Your task to perform on an android device: Empty the shopping cart on ebay.com. Add "duracell triple a" to the cart on ebay.com Image 0: 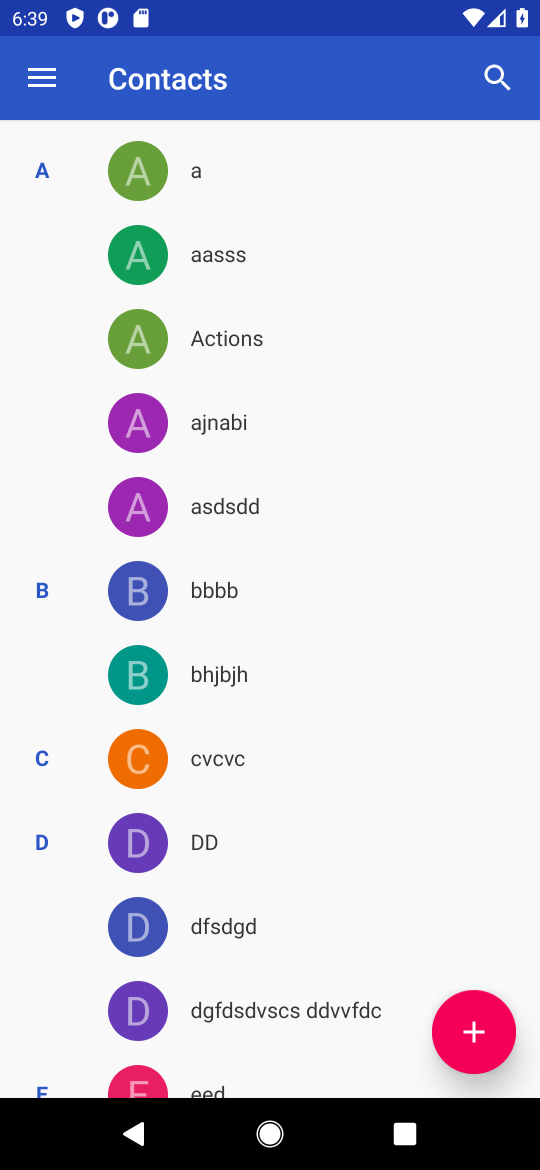
Step 0: press home button
Your task to perform on an android device: Empty the shopping cart on ebay.com. Add "duracell triple a" to the cart on ebay.com Image 1: 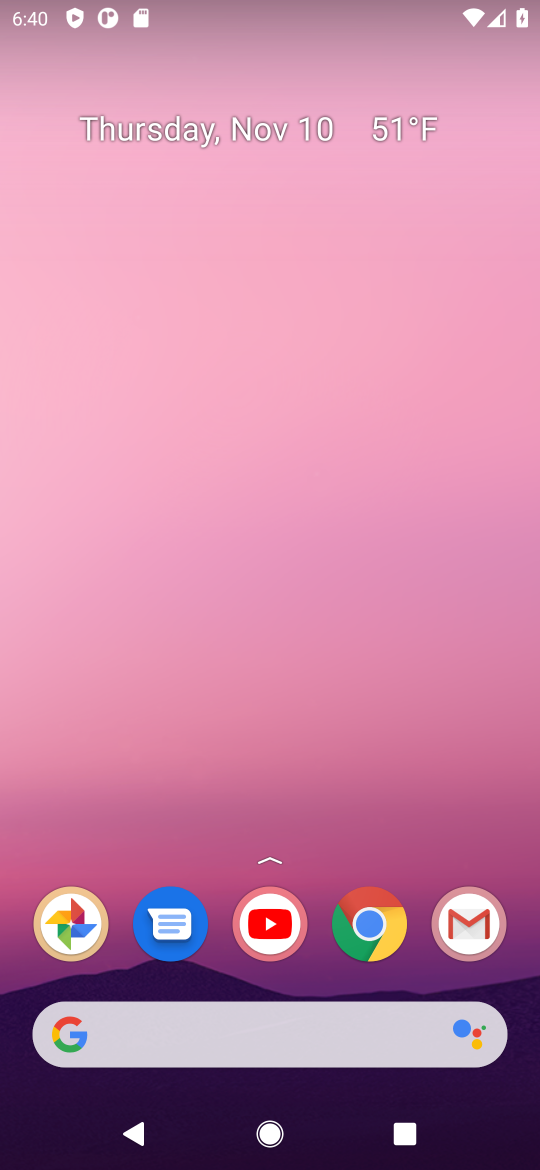
Step 1: click (370, 935)
Your task to perform on an android device: Empty the shopping cart on ebay.com. Add "duracell triple a" to the cart on ebay.com Image 2: 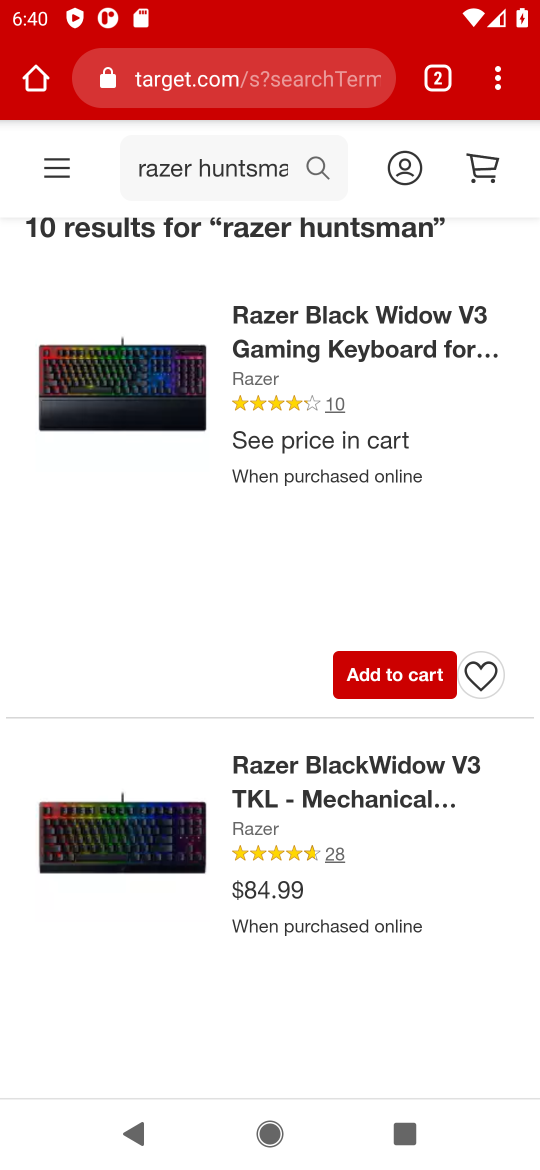
Step 2: click (199, 80)
Your task to perform on an android device: Empty the shopping cart on ebay.com. Add "duracell triple a" to the cart on ebay.com Image 3: 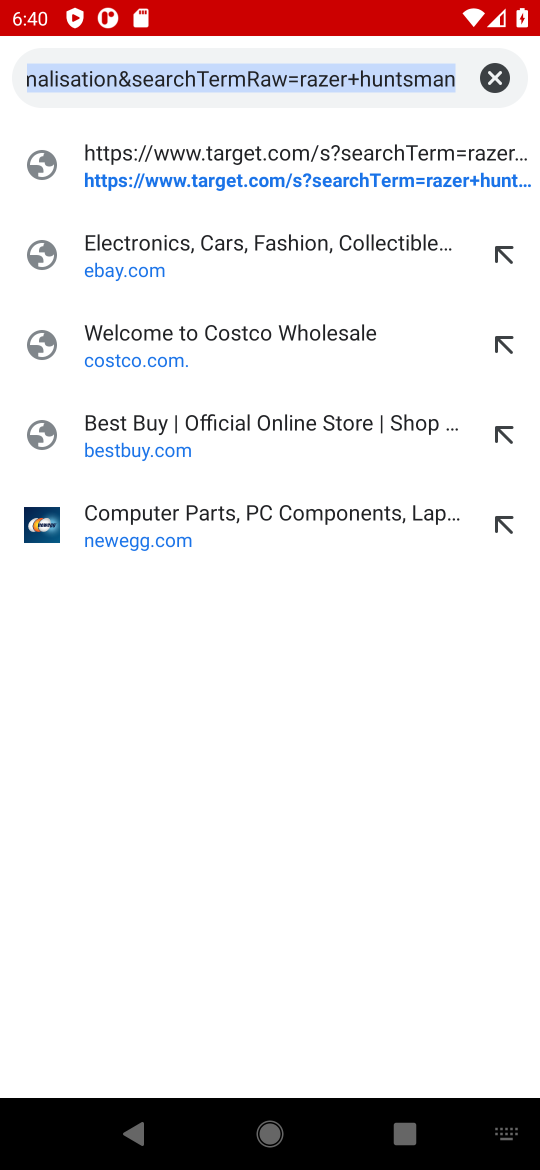
Step 3: click (109, 272)
Your task to perform on an android device: Empty the shopping cart on ebay.com. Add "duracell triple a" to the cart on ebay.com Image 4: 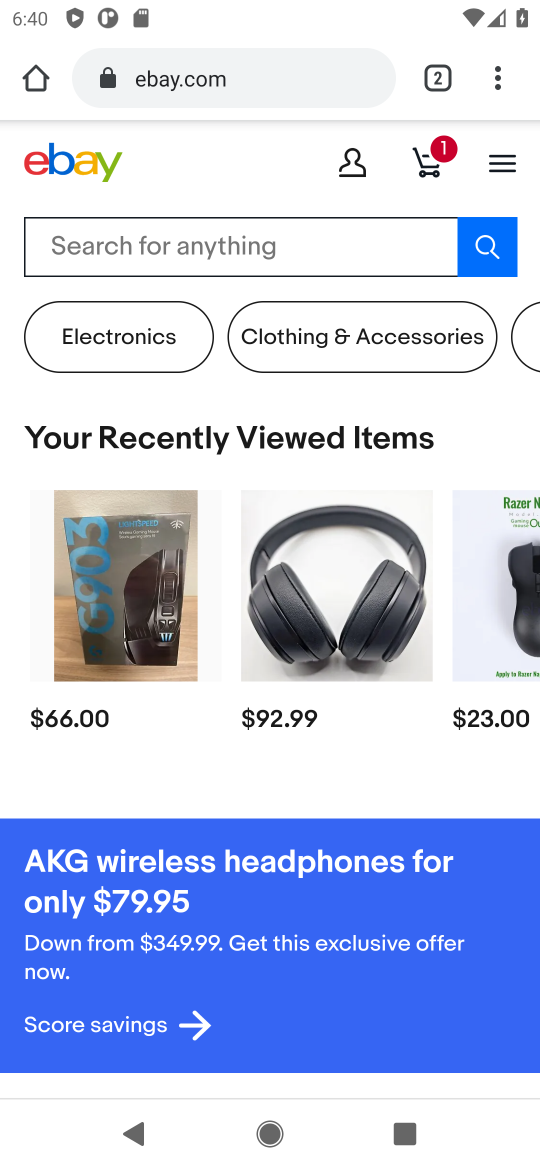
Step 4: click (431, 158)
Your task to perform on an android device: Empty the shopping cart on ebay.com. Add "duracell triple a" to the cart on ebay.com Image 5: 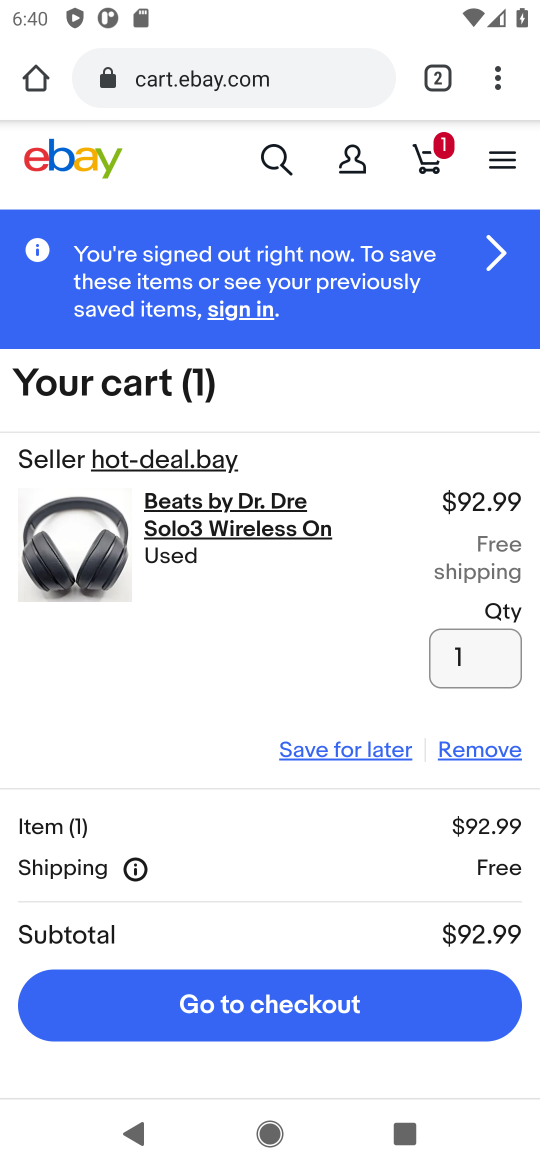
Step 5: click (477, 753)
Your task to perform on an android device: Empty the shopping cart on ebay.com. Add "duracell triple a" to the cart on ebay.com Image 6: 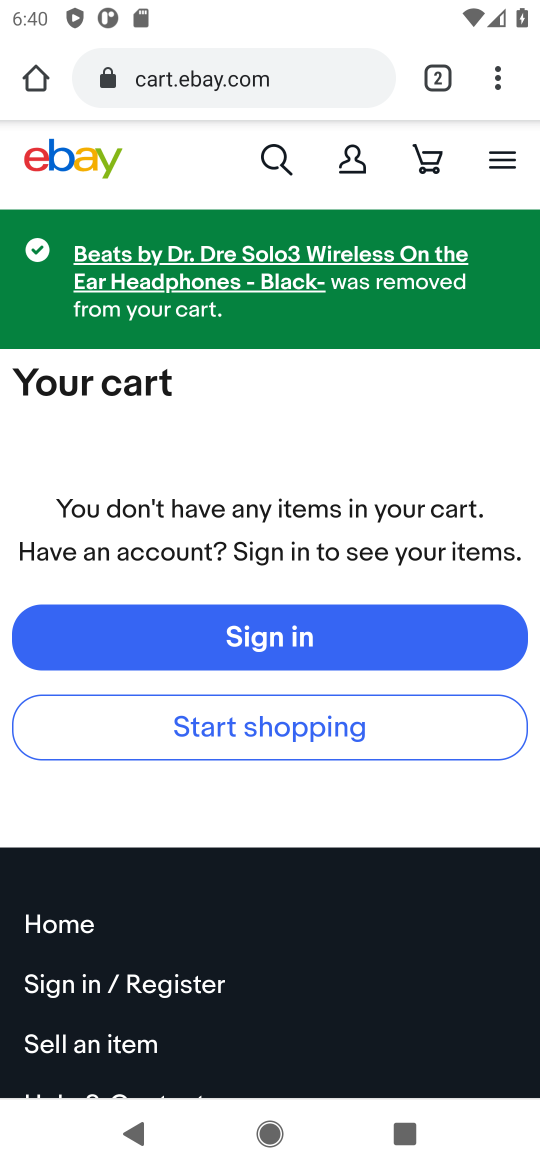
Step 6: click (279, 135)
Your task to perform on an android device: Empty the shopping cart on ebay.com. Add "duracell triple a" to the cart on ebay.com Image 7: 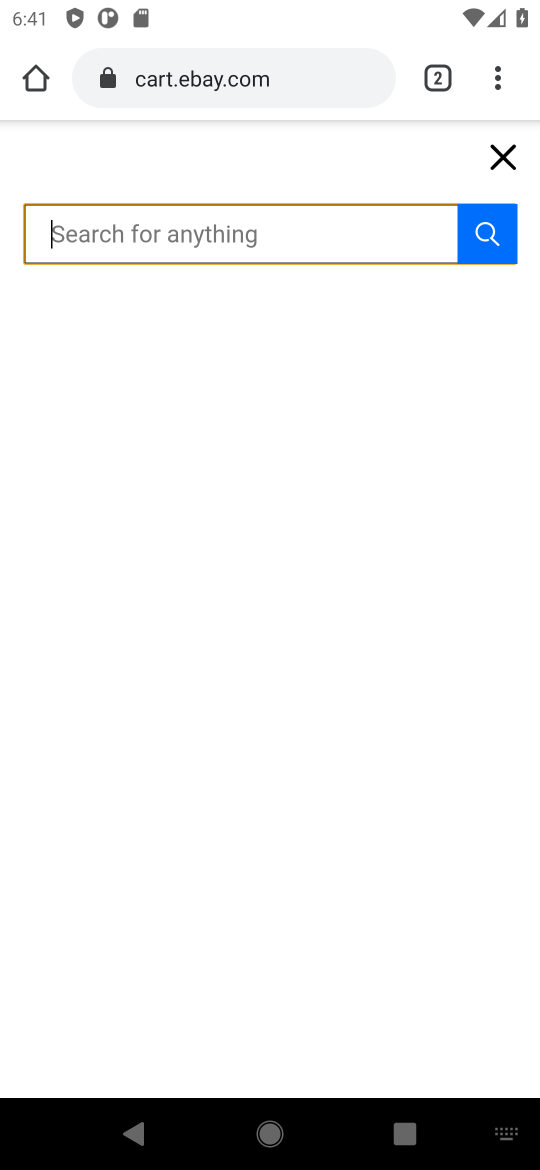
Step 7: type "duracell triple a"
Your task to perform on an android device: Empty the shopping cart on ebay.com. Add "duracell triple a" to the cart on ebay.com Image 8: 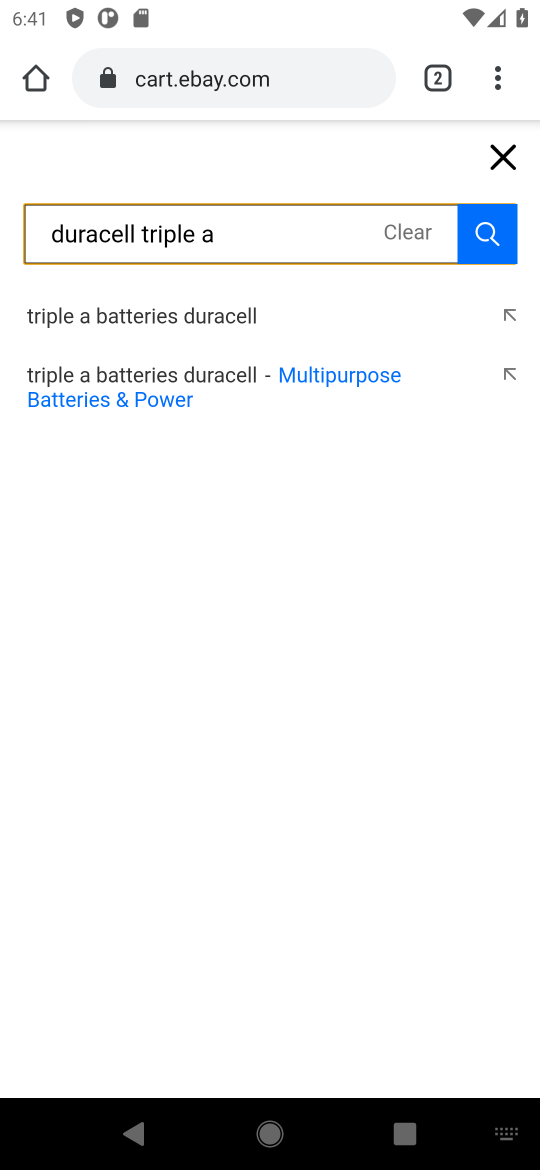
Step 8: click (482, 239)
Your task to perform on an android device: Empty the shopping cart on ebay.com. Add "duracell triple a" to the cart on ebay.com Image 9: 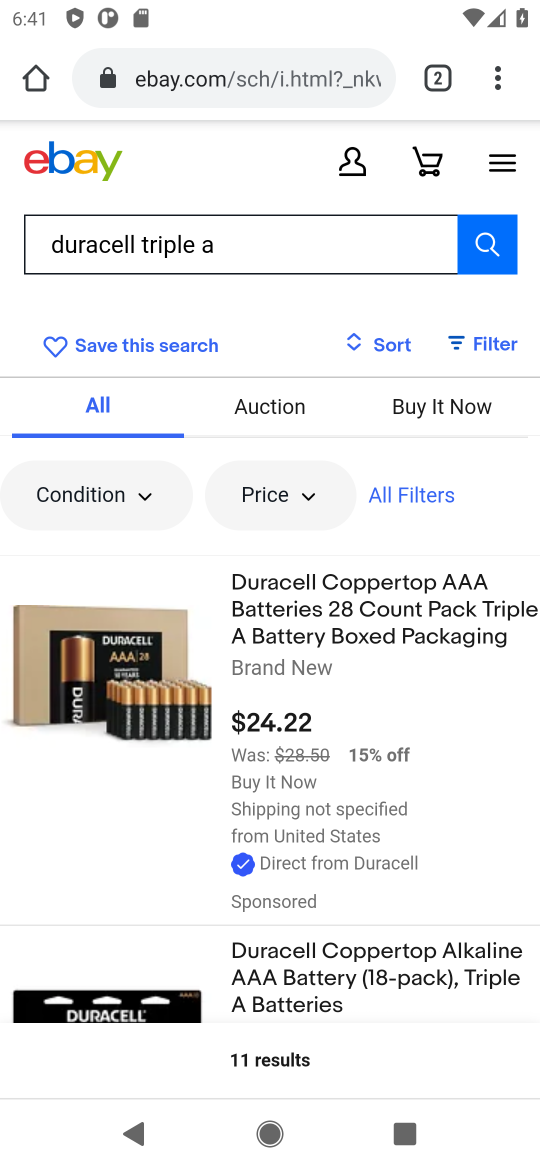
Step 9: click (119, 675)
Your task to perform on an android device: Empty the shopping cart on ebay.com. Add "duracell triple a" to the cart on ebay.com Image 10: 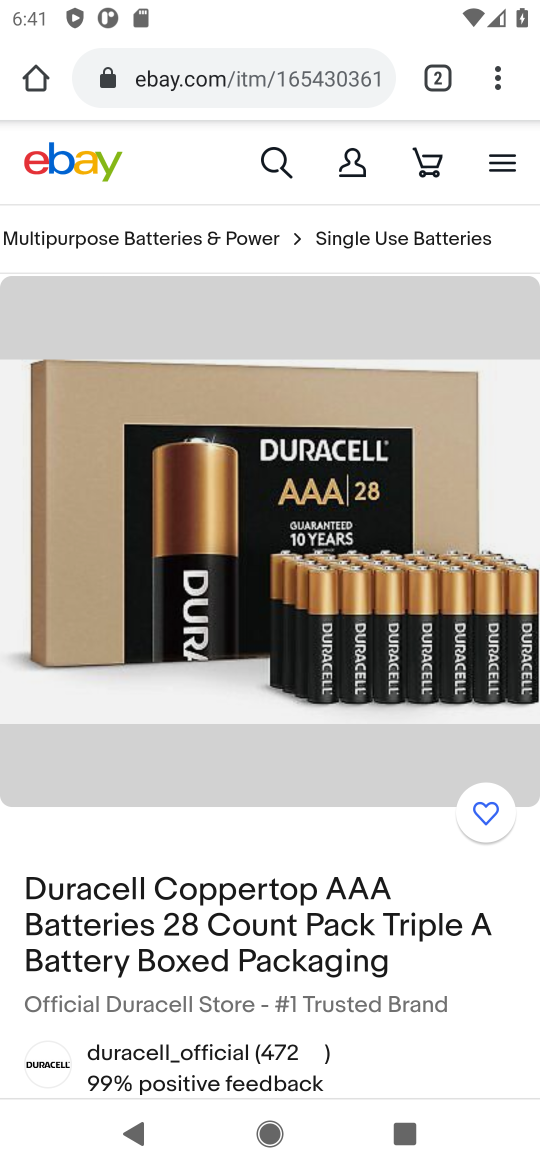
Step 10: drag from (251, 915) to (208, 437)
Your task to perform on an android device: Empty the shopping cart on ebay.com. Add "duracell triple a" to the cart on ebay.com Image 11: 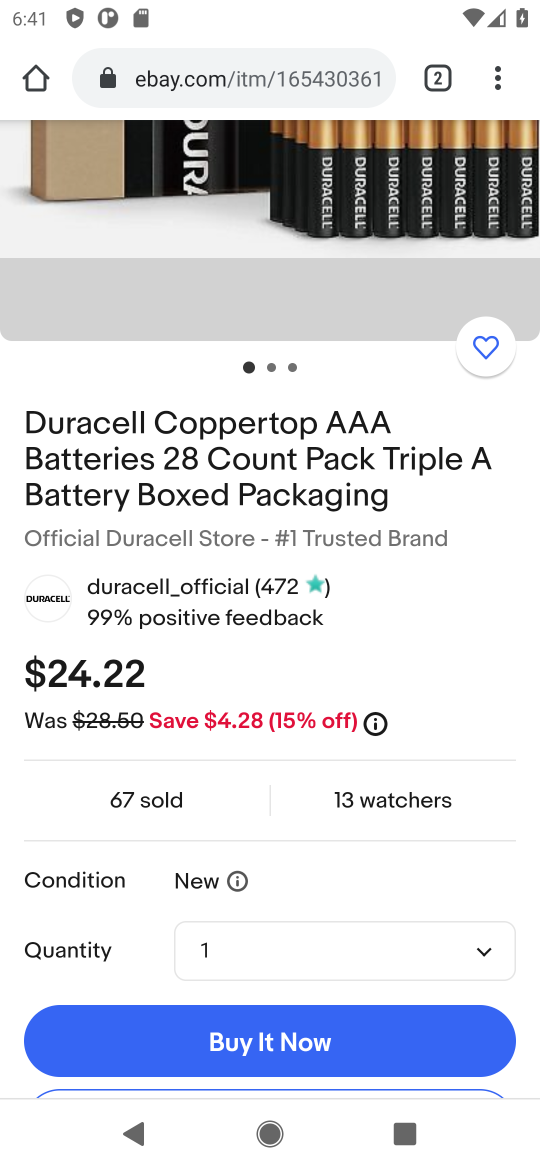
Step 11: drag from (310, 850) to (277, 436)
Your task to perform on an android device: Empty the shopping cart on ebay.com. Add "duracell triple a" to the cart on ebay.com Image 12: 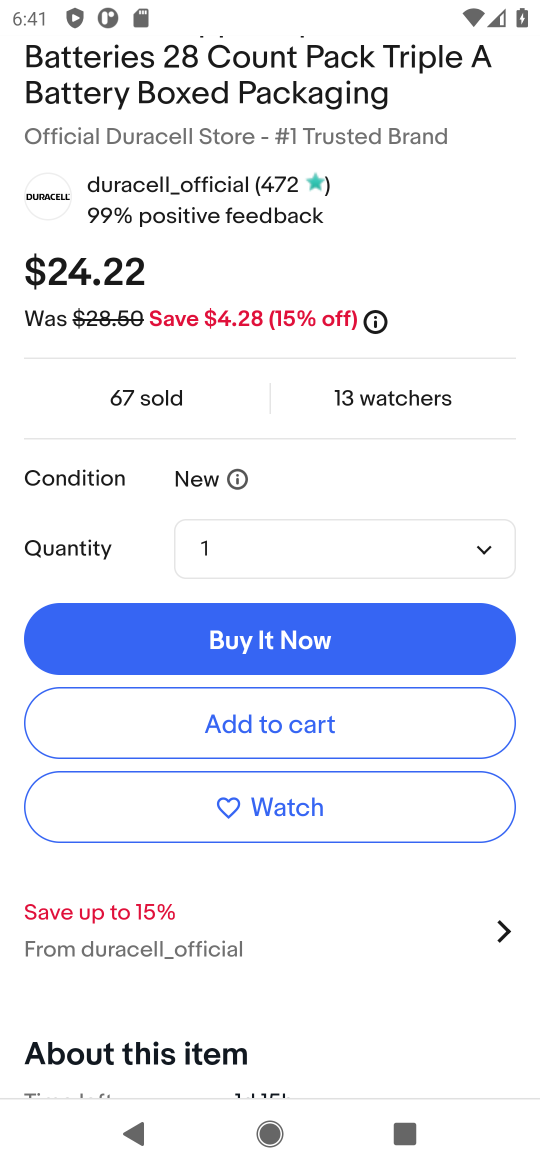
Step 12: click (263, 712)
Your task to perform on an android device: Empty the shopping cart on ebay.com. Add "duracell triple a" to the cart on ebay.com Image 13: 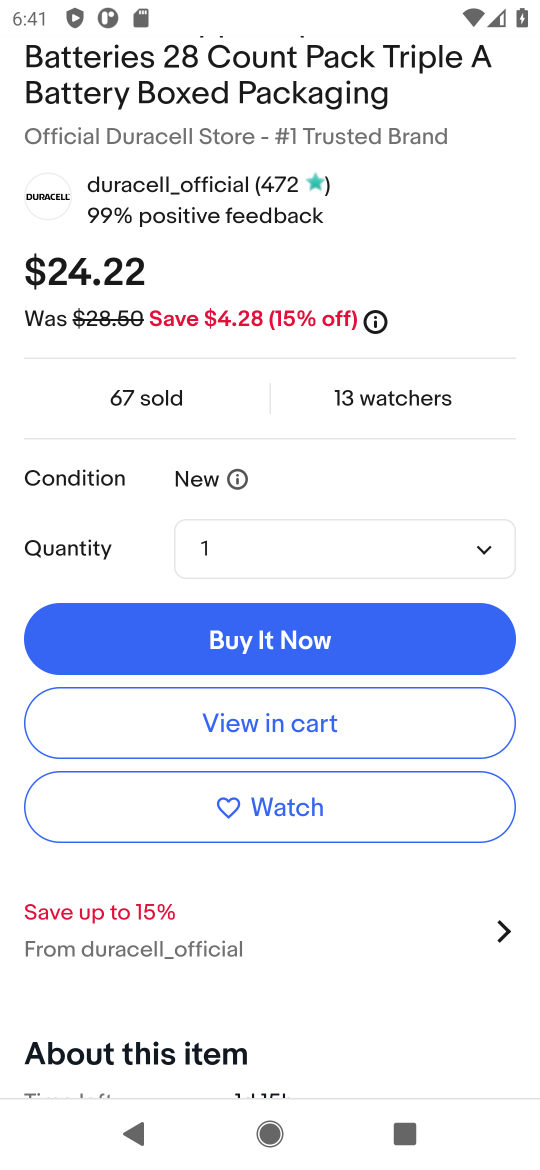
Step 13: task complete